Your task to perform on an android device: Play the last video I watched on Youtube Image 0: 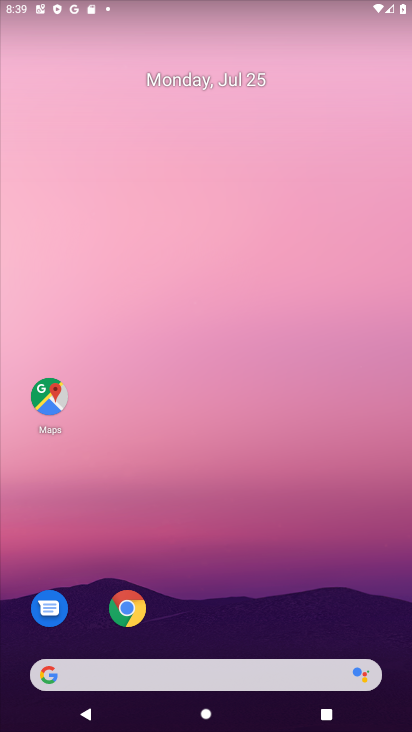
Step 0: drag from (308, 632) to (306, 117)
Your task to perform on an android device: Play the last video I watched on Youtube Image 1: 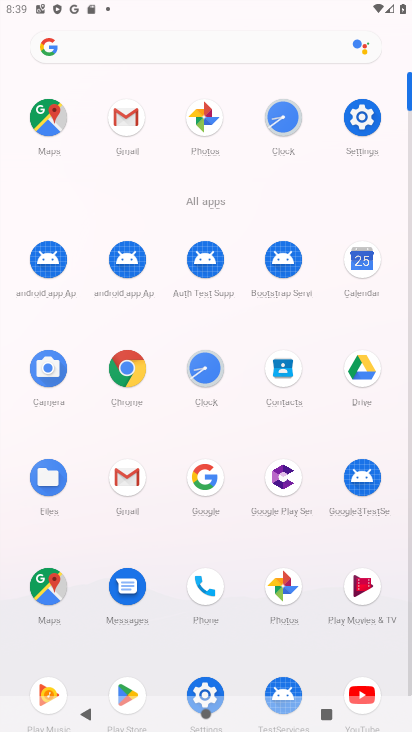
Step 1: click (360, 681)
Your task to perform on an android device: Play the last video I watched on Youtube Image 2: 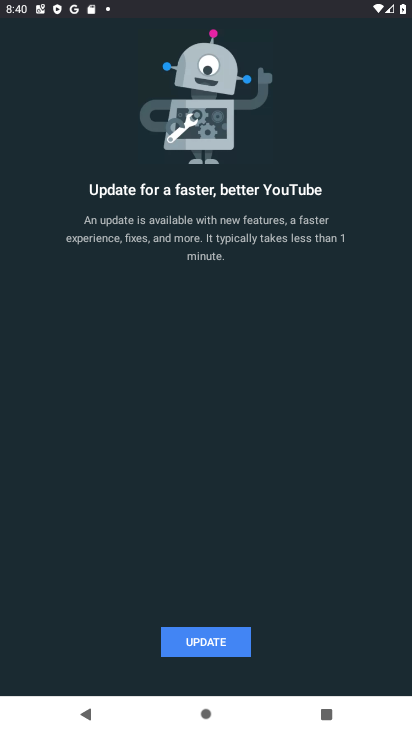
Step 2: task complete